Your task to perform on an android device: Go to notification settings Image 0: 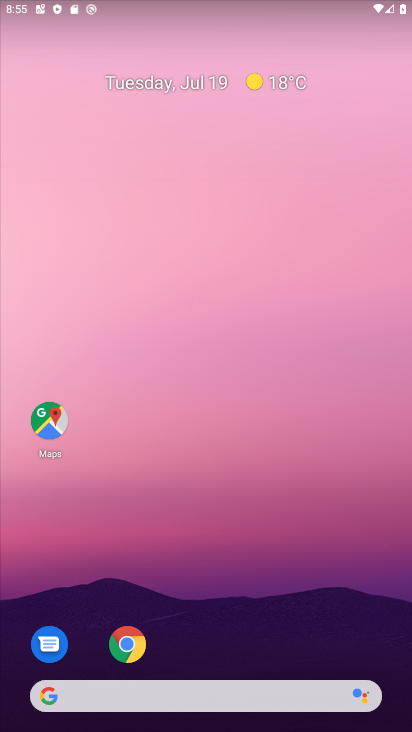
Step 0: drag from (220, 728) to (223, 260)
Your task to perform on an android device: Go to notification settings Image 1: 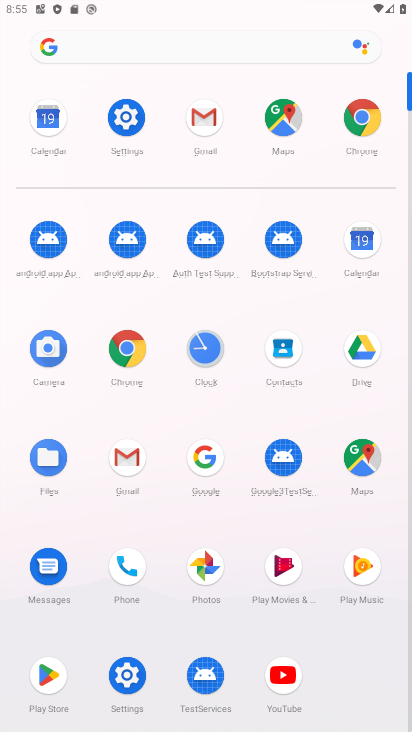
Step 1: click (131, 115)
Your task to perform on an android device: Go to notification settings Image 2: 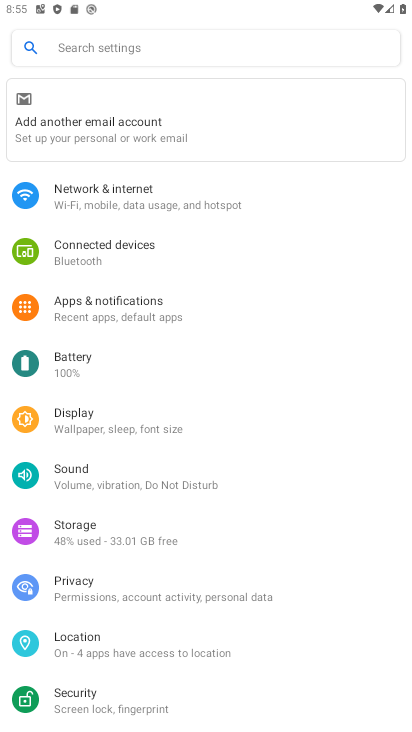
Step 2: click (116, 304)
Your task to perform on an android device: Go to notification settings Image 3: 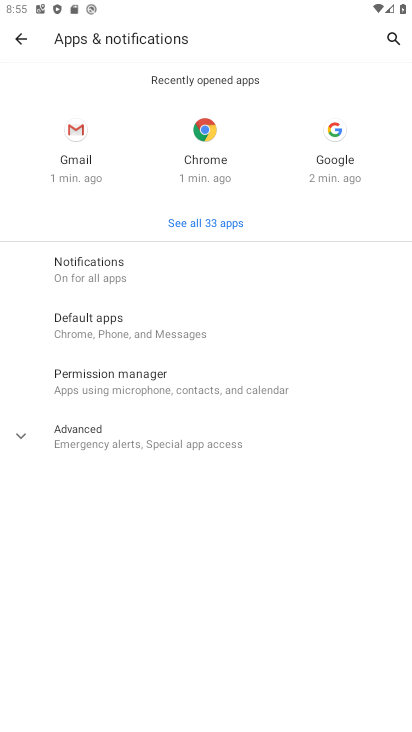
Step 3: click (78, 275)
Your task to perform on an android device: Go to notification settings Image 4: 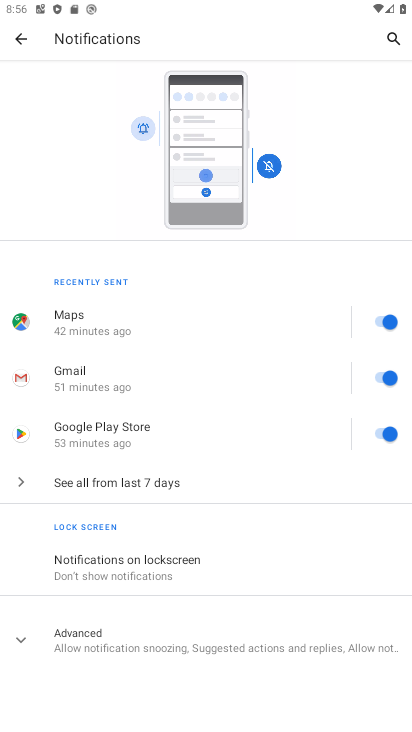
Step 4: task complete